Your task to perform on an android device: What is the recent news? Image 0: 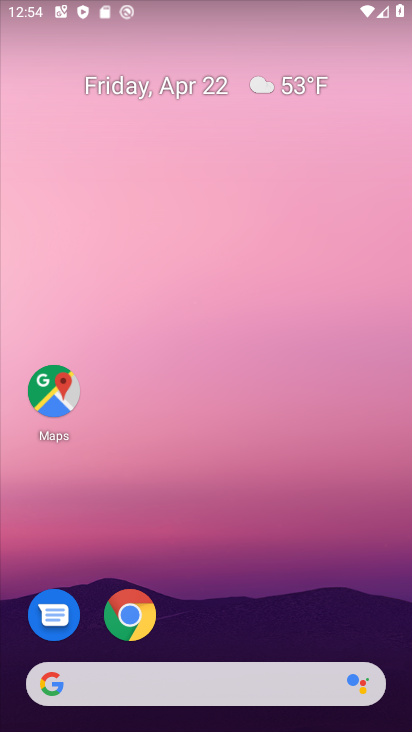
Step 0: drag from (51, 262) to (410, 331)
Your task to perform on an android device: What is the recent news? Image 1: 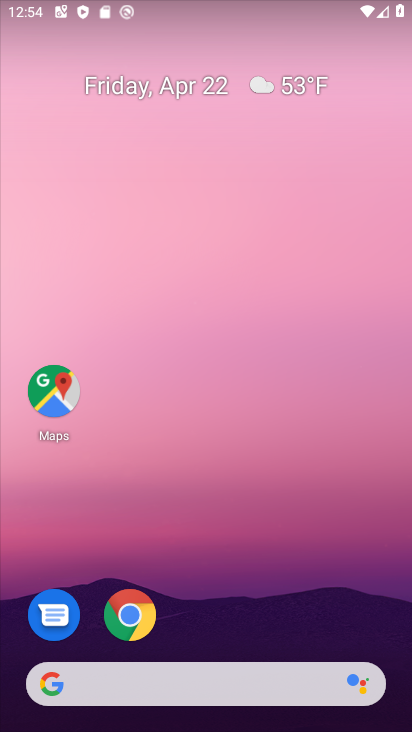
Step 1: task complete